Your task to perform on an android device: Go to display settings Image 0: 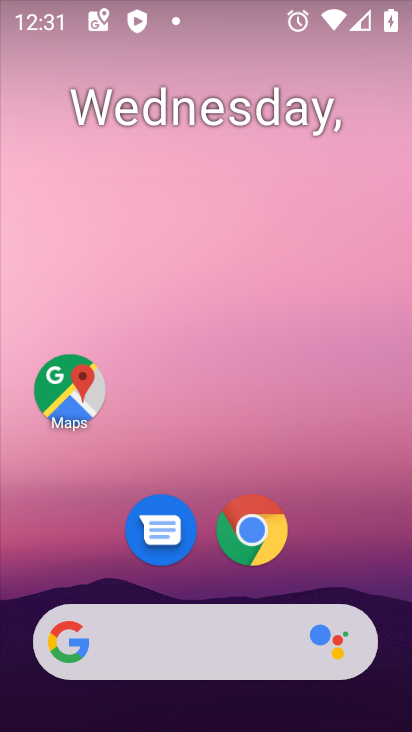
Step 0: drag from (226, 579) to (281, 188)
Your task to perform on an android device: Go to display settings Image 1: 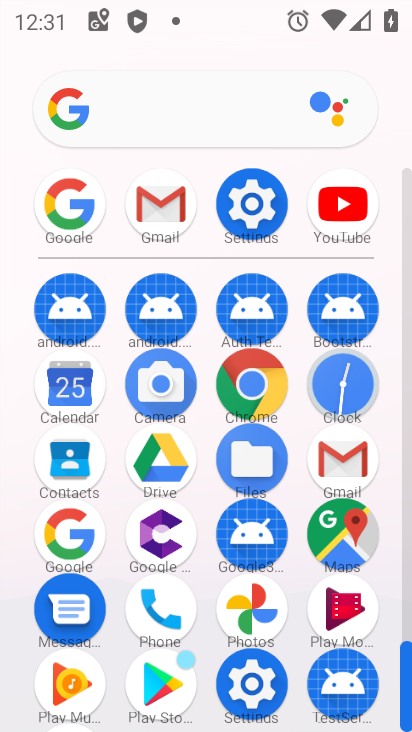
Step 1: click (250, 205)
Your task to perform on an android device: Go to display settings Image 2: 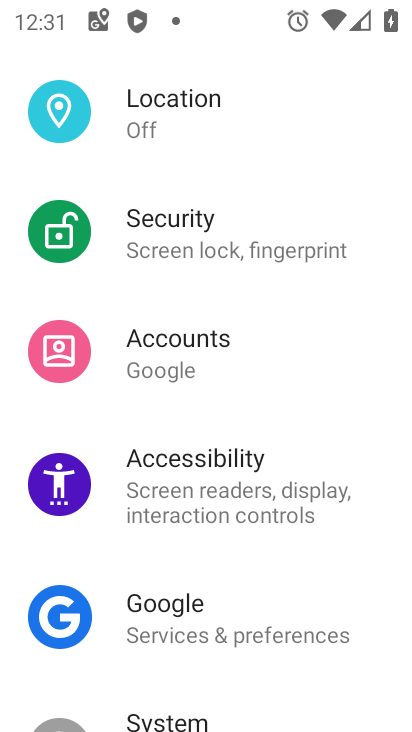
Step 2: drag from (222, 168) to (145, 562)
Your task to perform on an android device: Go to display settings Image 3: 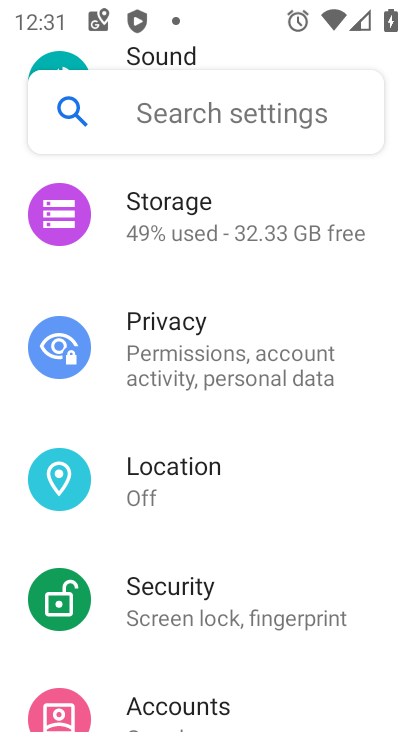
Step 3: drag from (220, 183) to (238, 600)
Your task to perform on an android device: Go to display settings Image 4: 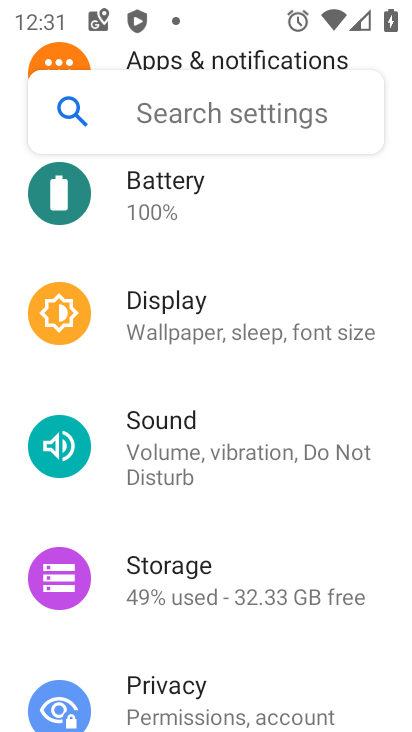
Step 4: click (189, 329)
Your task to perform on an android device: Go to display settings Image 5: 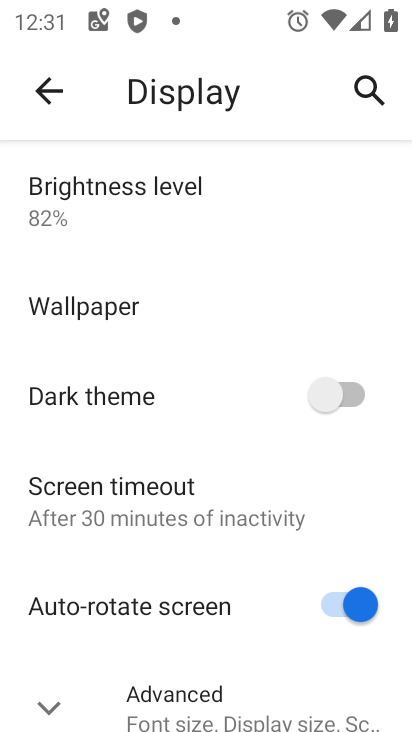
Step 5: task complete